Your task to perform on an android device: turn on data saver in the chrome app Image 0: 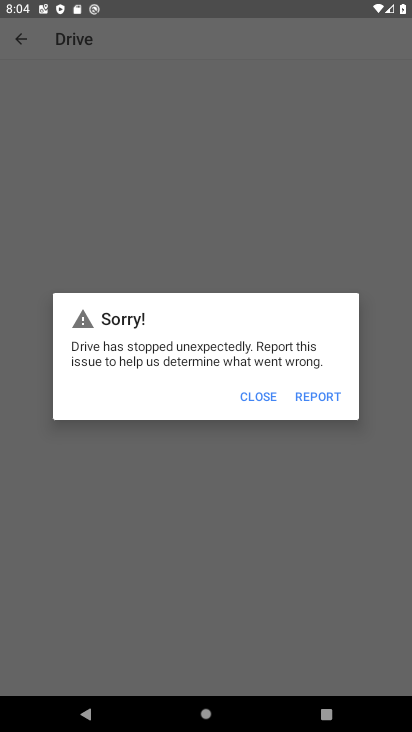
Step 0: press home button
Your task to perform on an android device: turn on data saver in the chrome app Image 1: 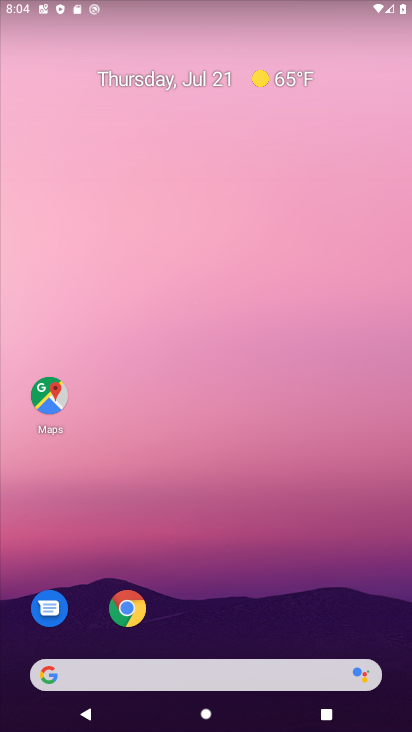
Step 1: click (128, 609)
Your task to perform on an android device: turn on data saver in the chrome app Image 2: 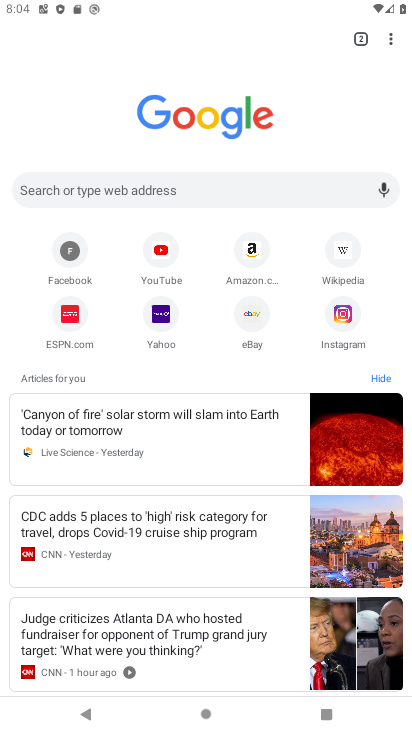
Step 2: click (390, 38)
Your task to perform on an android device: turn on data saver in the chrome app Image 3: 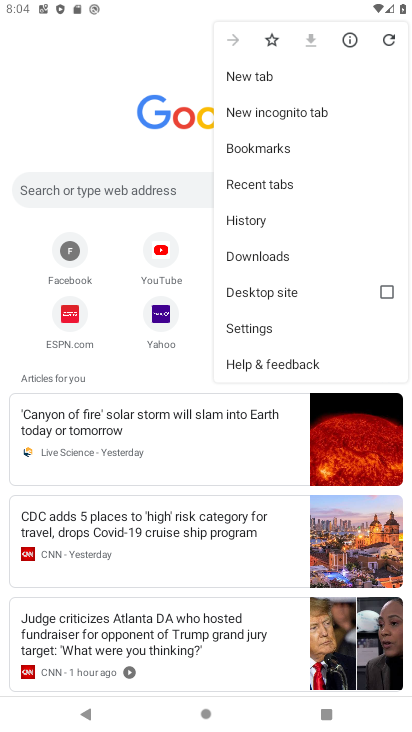
Step 3: click (255, 327)
Your task to perform on an android device: turn on data saver in the chrome app Image 4: 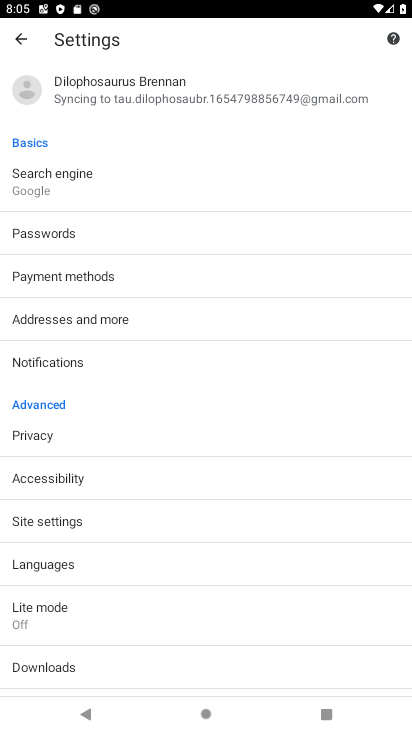
Step 4: click (49, 606)
Your task to perform on an android device: turn on data saver in the chrome app Image 5: 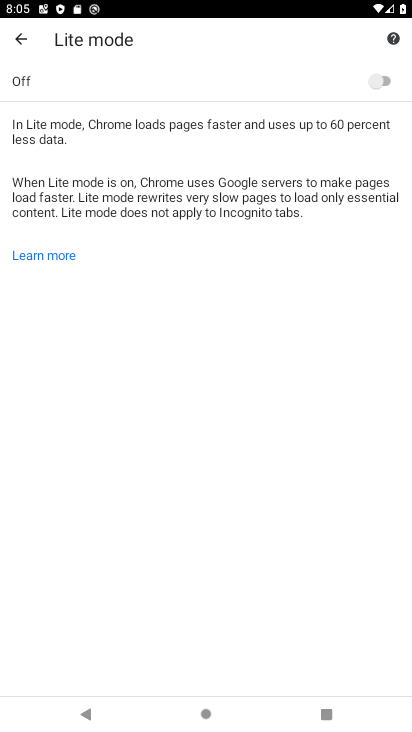
Step 5: click (378, 82)
Your task to perform on an android device: turn on data saver in the chrome app Image 6: 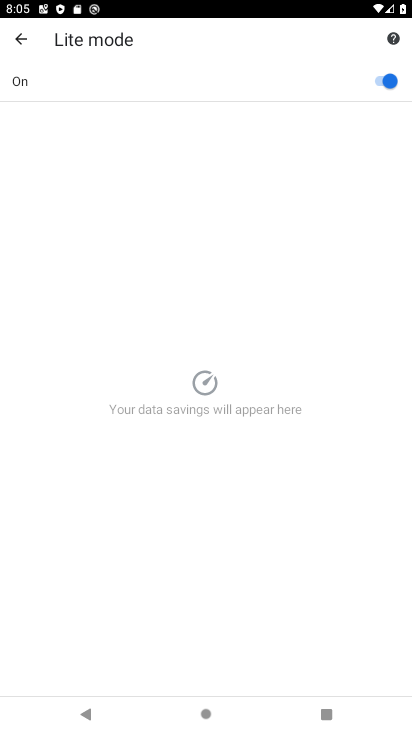
Step 6: task complete